Your task to perform on an android device: Go to location settings Image 0: 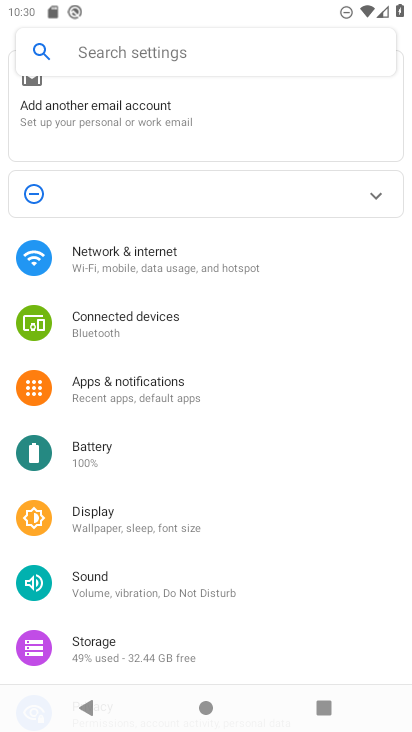
Step 0: press home button
Your task to perform on an android device: Go to location settings Image 1: 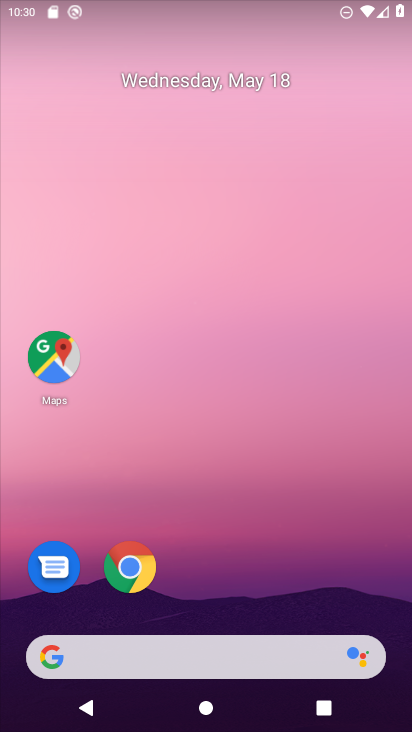
Step 1: drag from (267, 723) to (241, 166)
Your task to perform on an android device: Go to location settings Image 2: 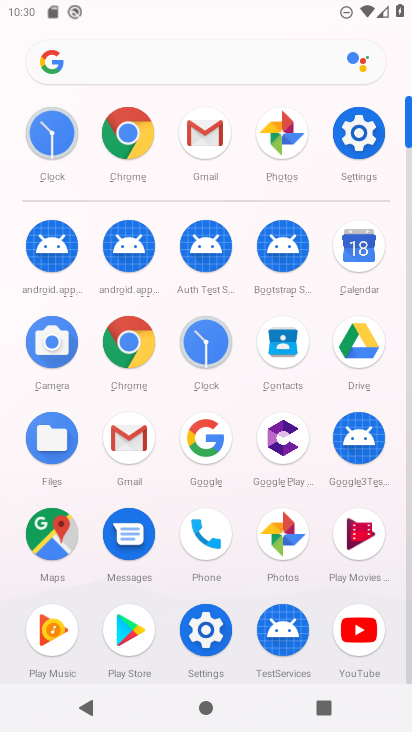
Step 2: click (341, 137)
Your task to perform on an android device: Go to location settings Image 3: 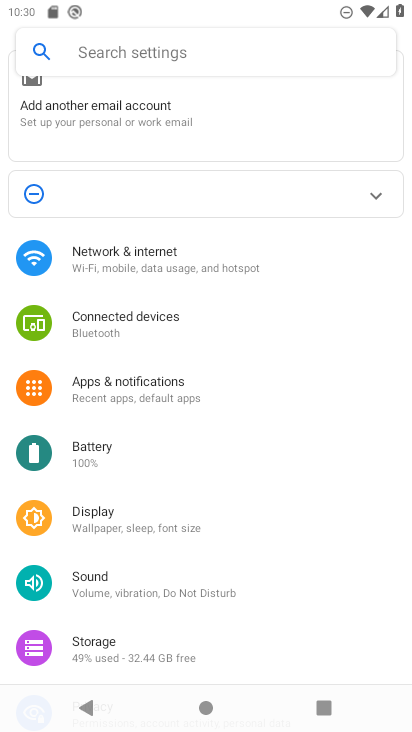
Step 3: click (109, 52)
Your task to perform on an android device: Go to location settings Image 4: 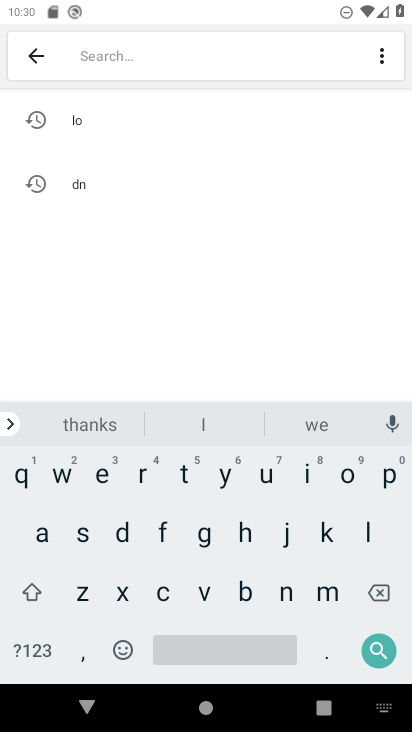
Step 4: click (81, 117)
Your task to perform on an android device: Go to location settings Image 5: 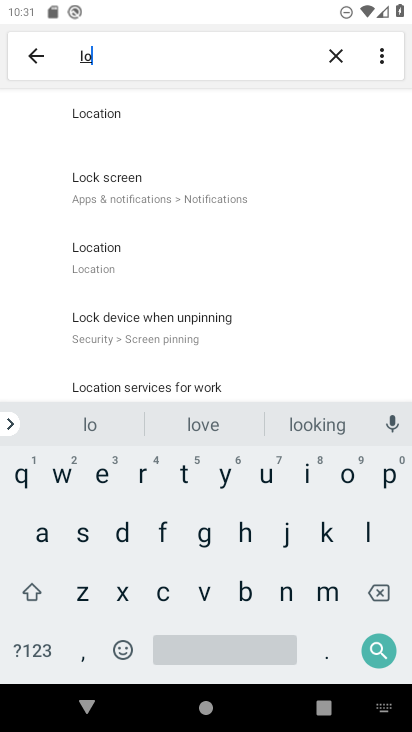
Step 5: click (123, 258)
Your task to perform on an android device: Go to location settings Image 6: 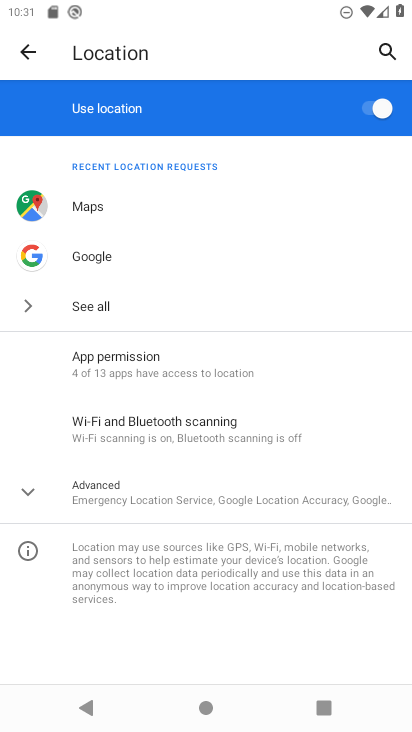
Step 6: task complete